Your task to perform on an android device: Search for seafood restaurants on Google Maps Image 0: 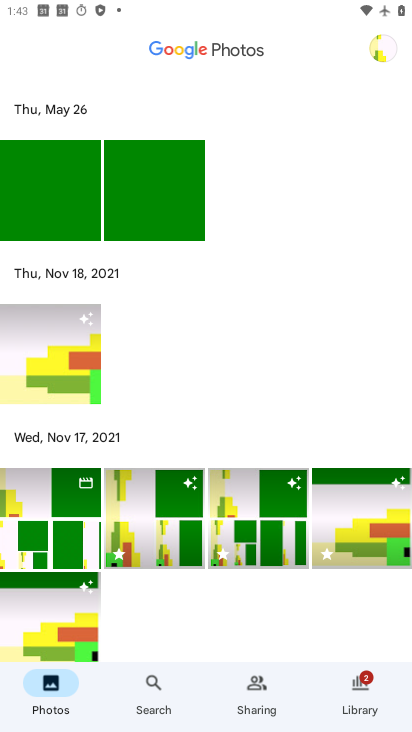
Step 0: press home button
Your task to perform on an android device: Search for seafood restaurants on Google Maps Image 1: 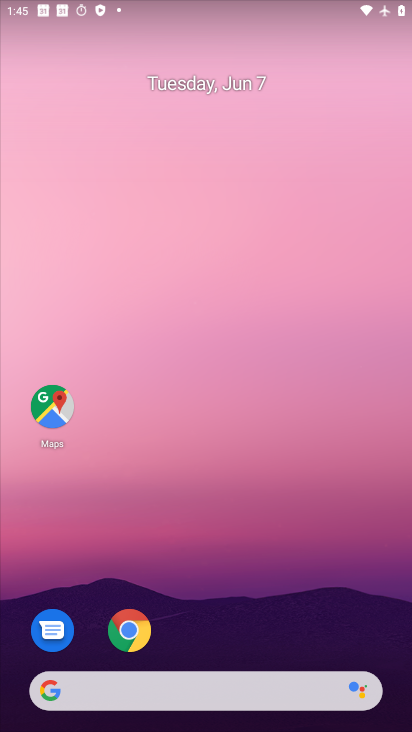
Step 1: drag from (287, 621) to (103, 8)
Your task to perform on an android device: Search for seafood restaurants on Google Maps Image 2: 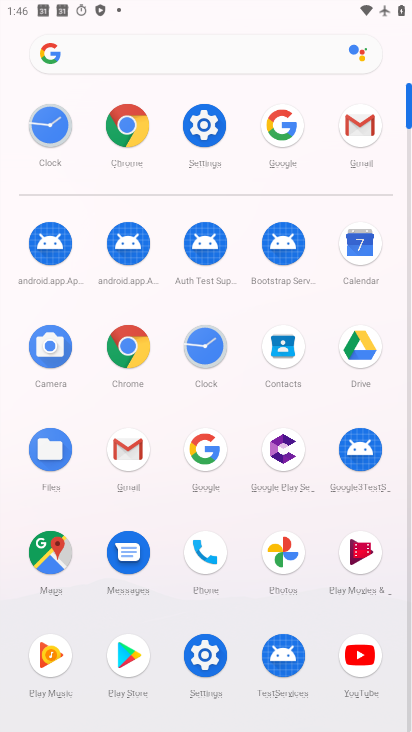
Step 2: click (28, 555)
Your task to perform on an android device: Search for seafood restaurants on Google Maps Image 3: 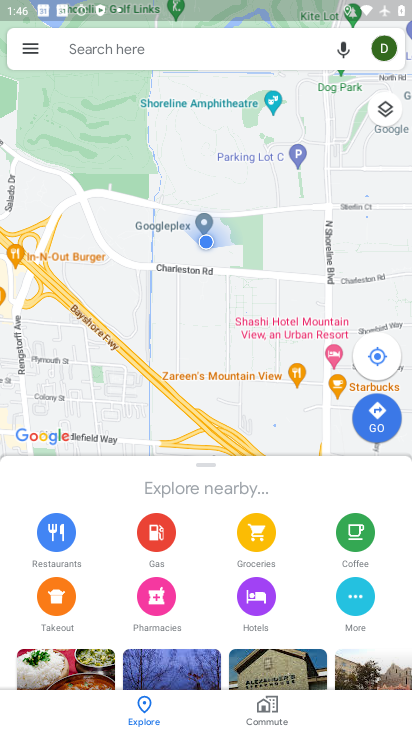
Step 3: click (189, 46)
Your task to perform on an android device: Search for seafood restaurants on Google Maps Image 4: 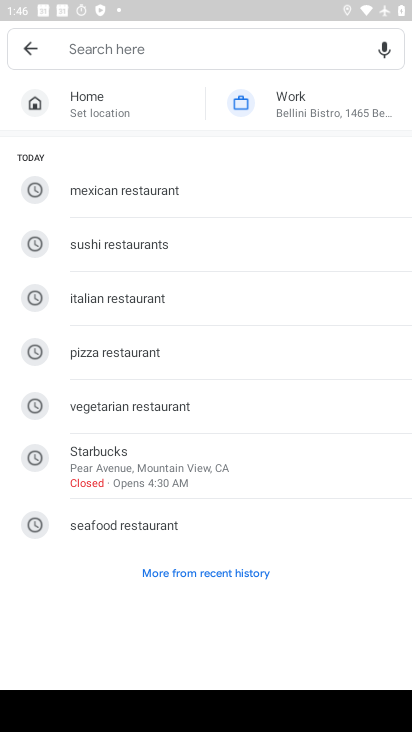
Step 4: click (83, 532)
Your task to perform on an android device: Search for seafood restaurants on Google Maps Image 5: 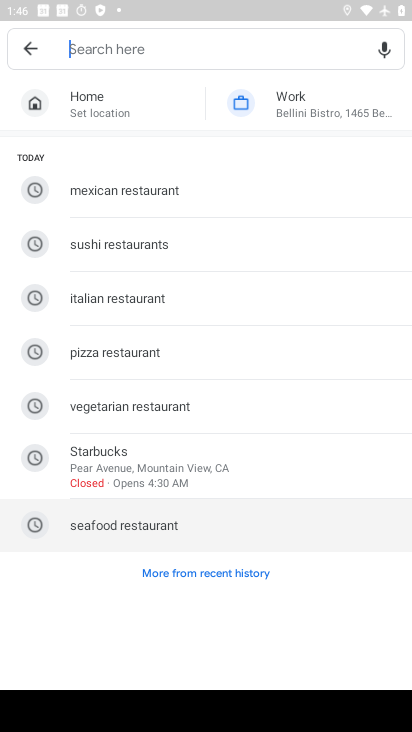
Step 5: click (83, 532)
Your task to perform on an android device: Search for seafood restaurants on Google Maps Image 6: 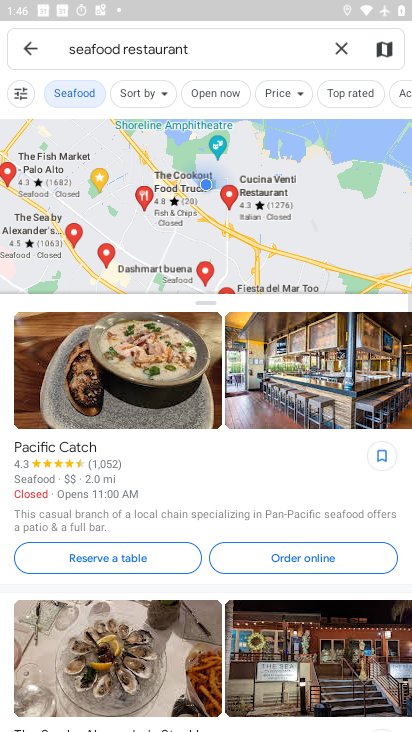
Step 6: task complete